Your task to perform on an android device: toggle pop-ups in chrome Image 0: 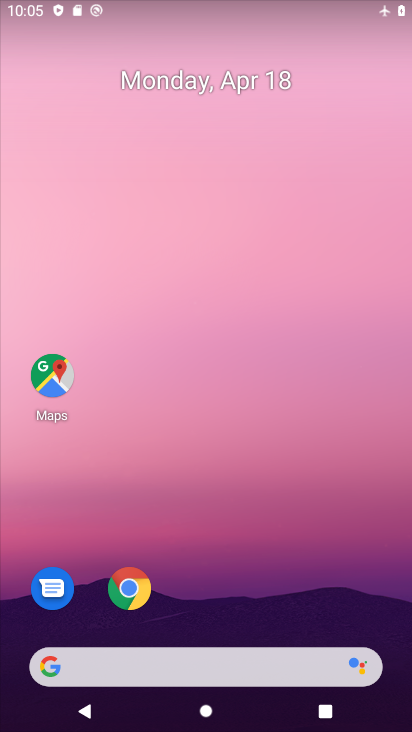
Step 0: click (124, 579)
Your task to perform on an android device: toggle pop-ups in chrome Image 1: 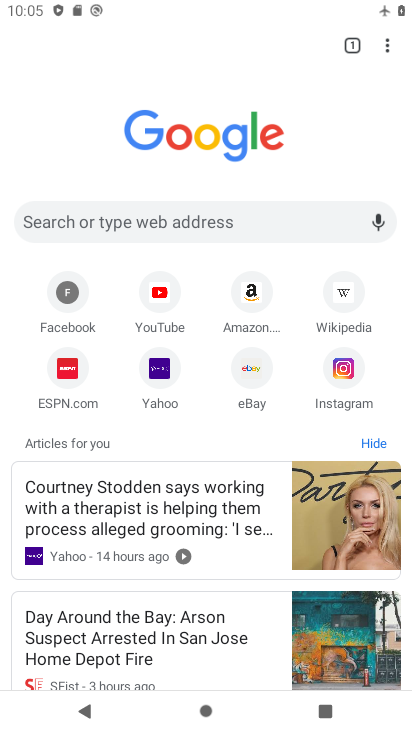
Step 1: click (383, 44)
Your task to perform on an android device: toggle pop-ups in chrome Image 2: 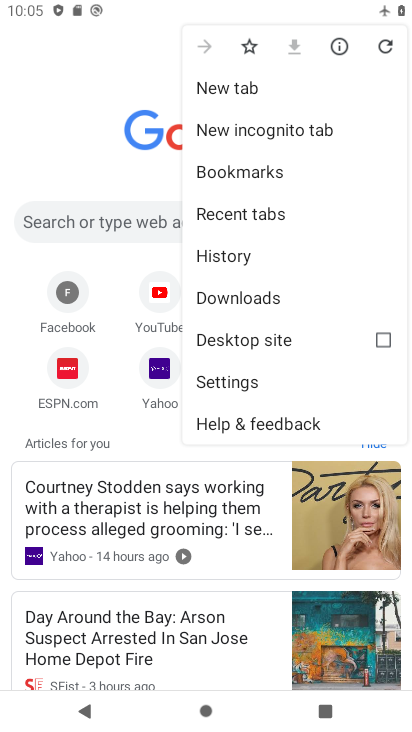
Step 2: click (321, 372)
Your task to perform on an android device: toggle pop-ups in chrome Image 3: 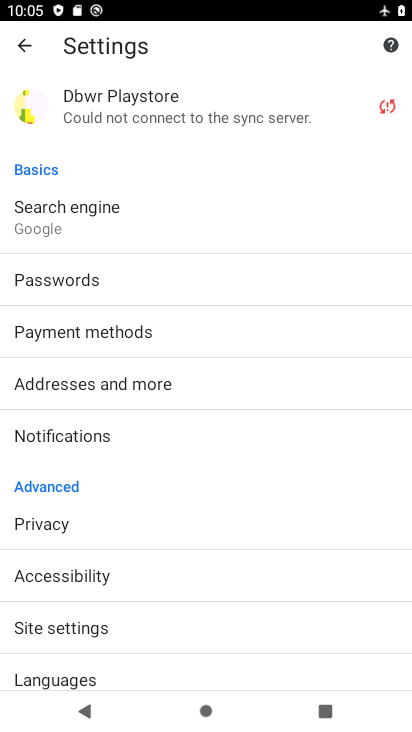
Step 3: drag from (170, 545) to (188, 458)
Your task to perform on an android device: toggle pop-ups in chrome Image 4: 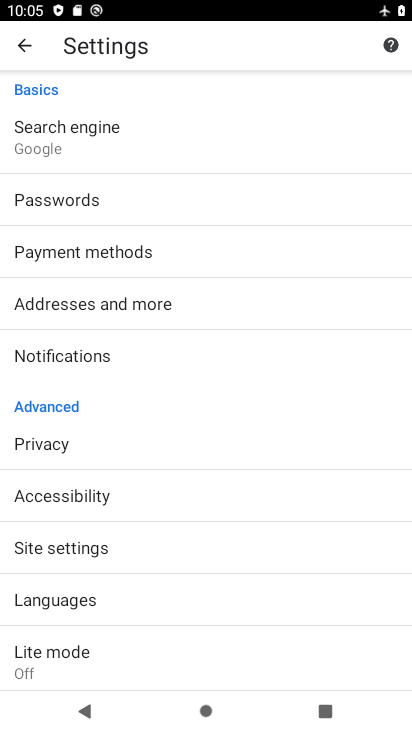
Step 4: click (141, 553)
Your task to perform on an android device: toggle pop-ups in chrome Image 5: 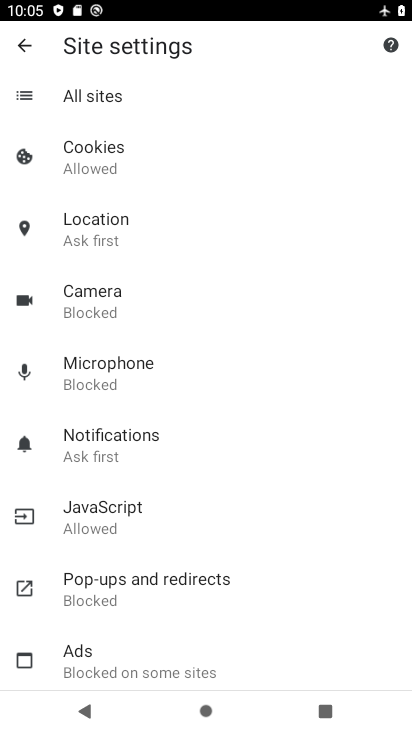
Step 5: click (141, 573)
Your task to perform on an android device: toggle pop-ups in chrome Image 6: 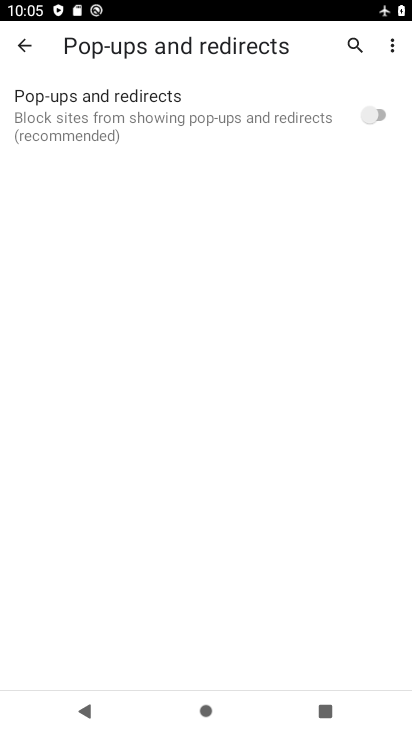
Step 6: click (386, 120)
Your task to perform on an android device: toggle pop-ups in chrome Image 7: 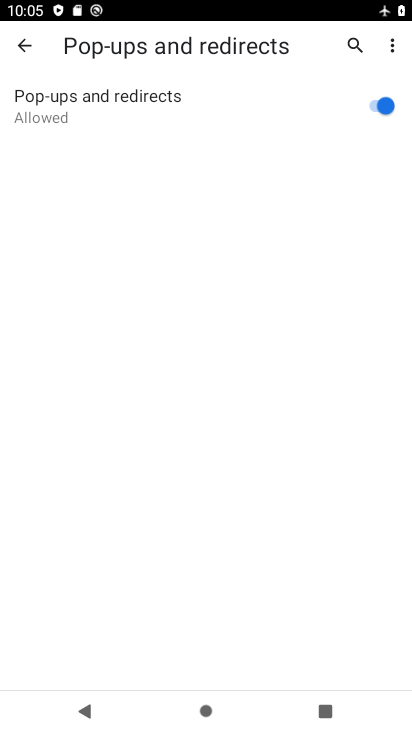
Step 7: task complete